Your task to perform on an android device: change text size in settings app Image 0: 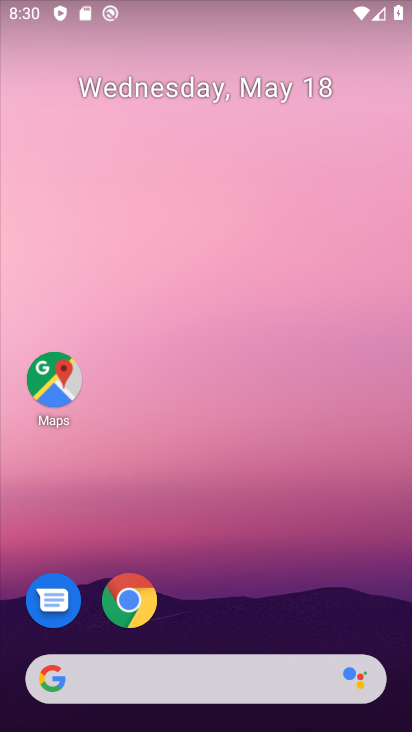
Step 0: drag from (25, 619) to (279, 120)
Your task to perform on an android device: change text size in settings app Image 1: 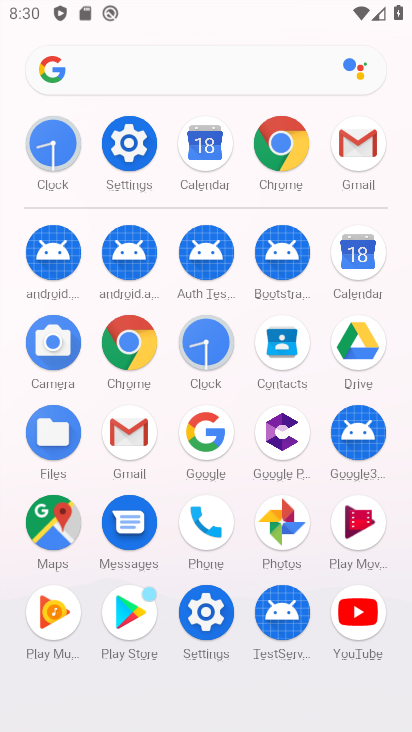
Step 1: click (121, 159)
Your task to perform on an android device: change text size in settings app Image 2: 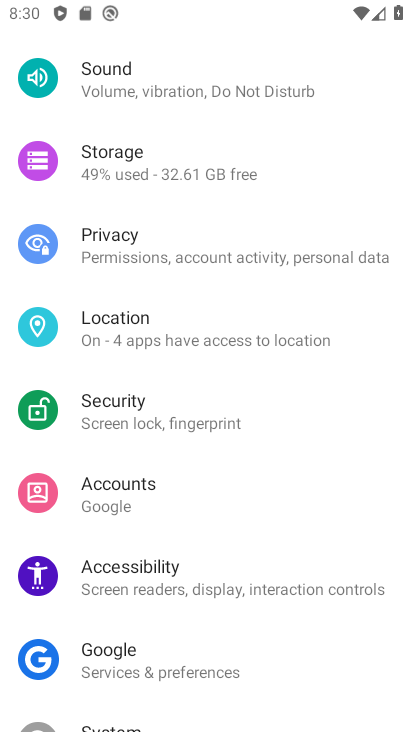
Step 2: drag from (112, 642) to (290, 246)
Your task to perform on an android device: change text size in settings app Image 3: 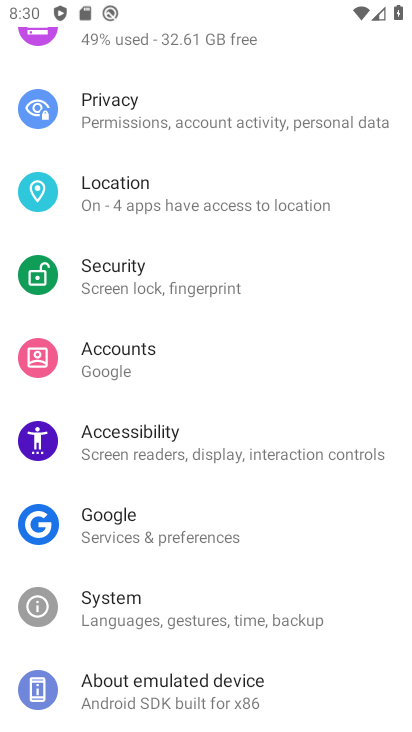
Step 3: drag from (298, 225) to (183, 614)
Your task to perform on an android device: change text size in settings app Image 4: 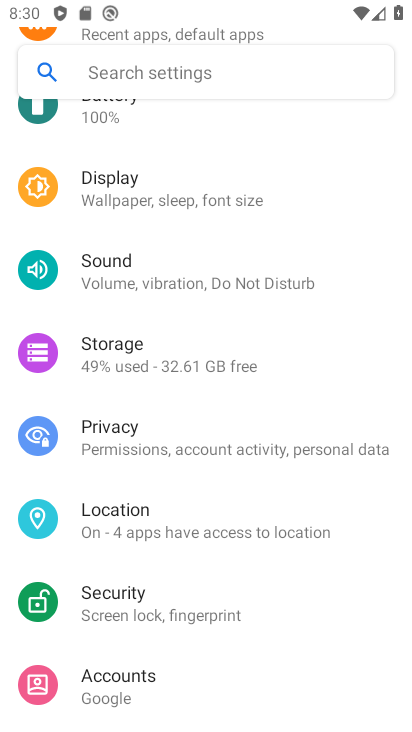
Step 4: click (265, 205)
Your task to perform on an android device: change text size in settings app Image 5: 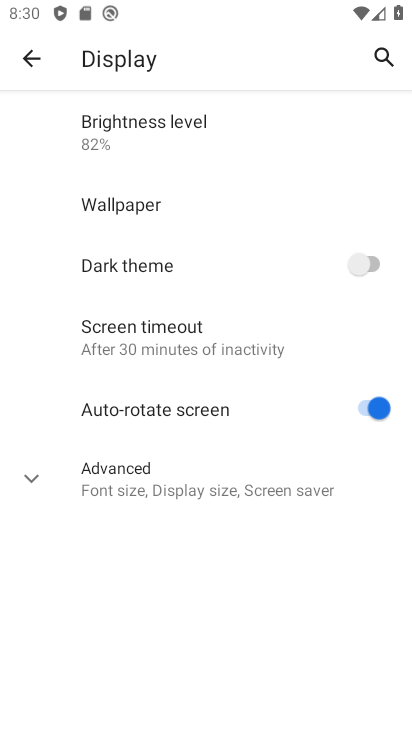
Step 5: click (179, 482)
Your task to perform on an android device: change text size in settings app Image 6: 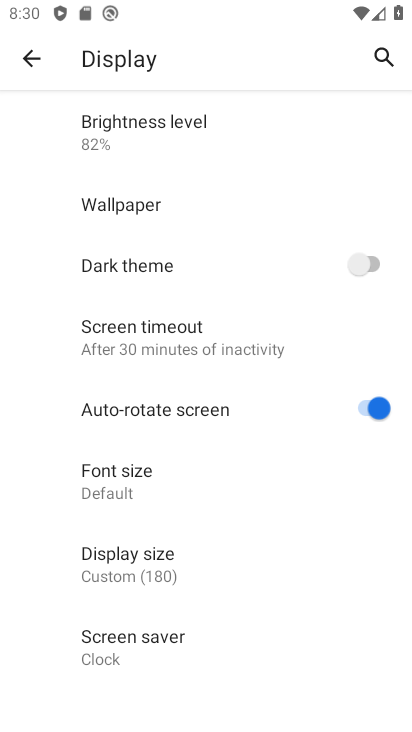
Step 6: click (203, 473)
Your task to perform on an android device: change text size in settings app Image 7: 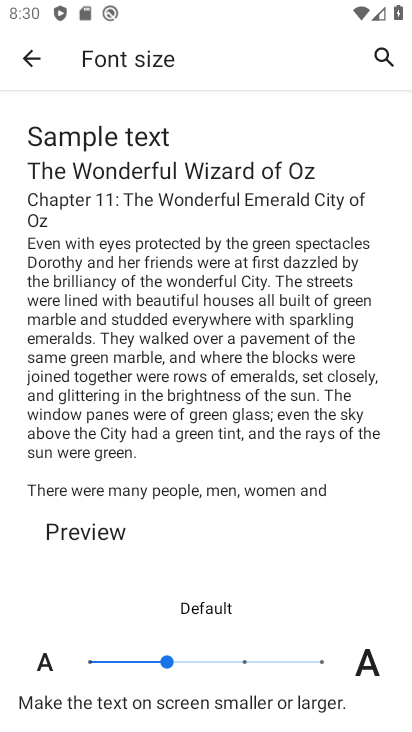
Step 7: click (245, 661)
Your task to perform on an android device: change text size in settings app Image 8: 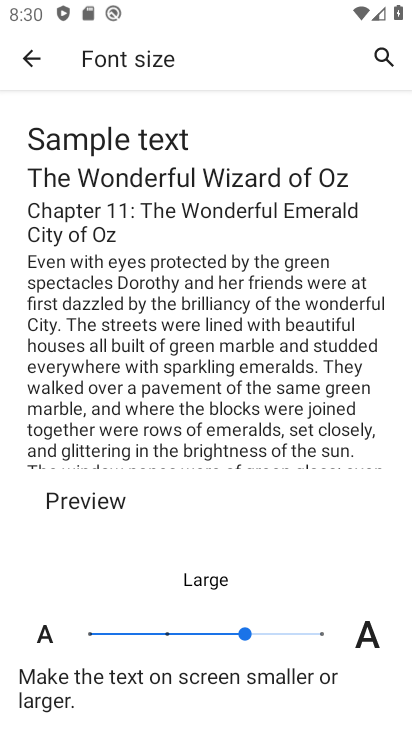
Step 8: task complete